Your task to perform on an android device: create a new album in the google photos Image 0: 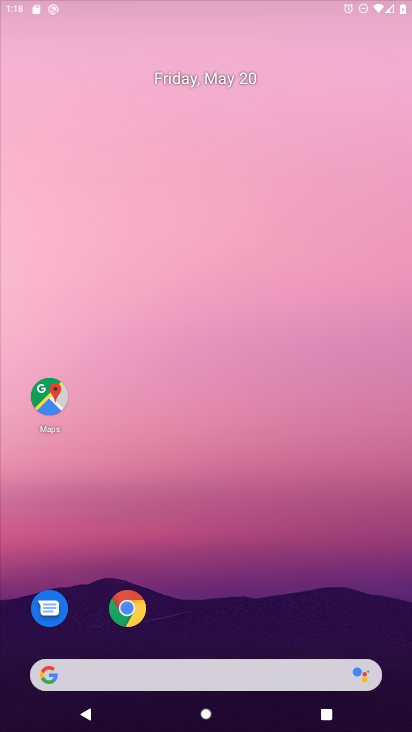
Step 0: press home button
Your task to perform on an android device: create a new album in the google photos Image 1: 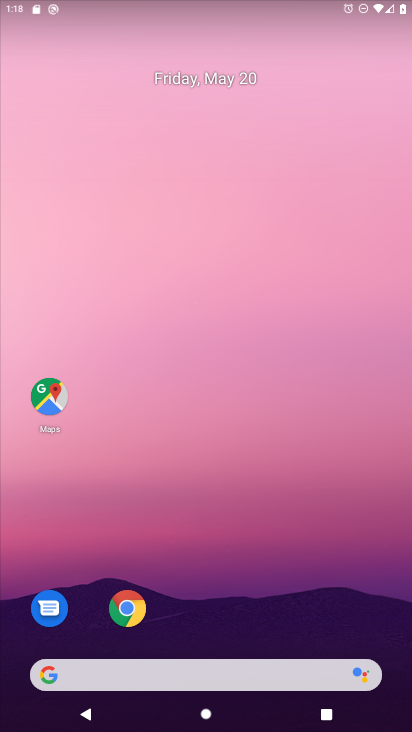
Step 1: drag from (284, 614) to (300, 86)
Your task to perform on an android device: create a new album in the google photos Image 2: 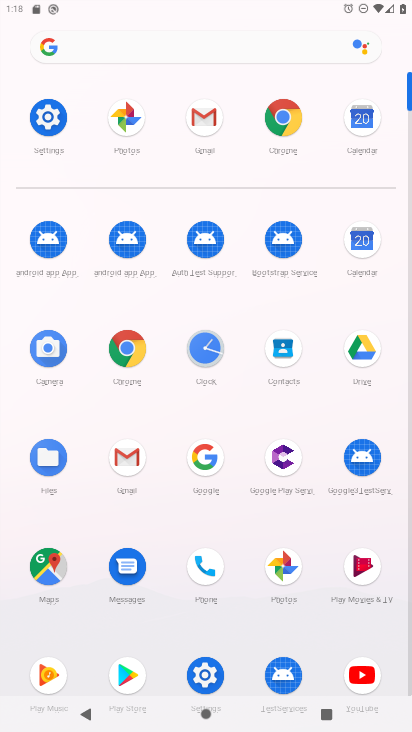
Step 2: click (128, 96)
Your task to perform on an android device: create a new album in the google photos Image 3: 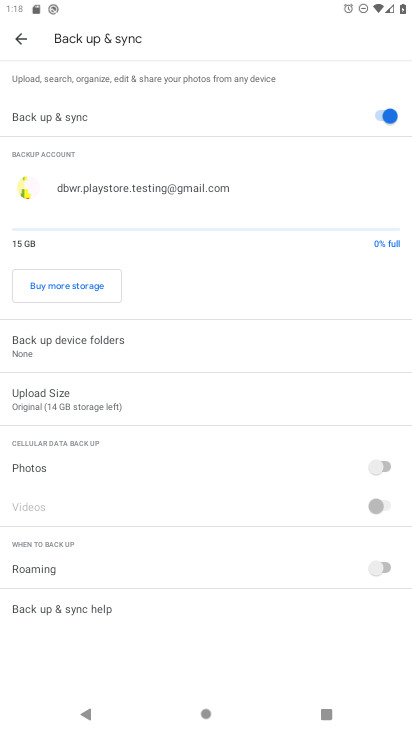
Step 3: click (23, 43)
Your task to perform on an android device: create a new album in the google photos Image 4: 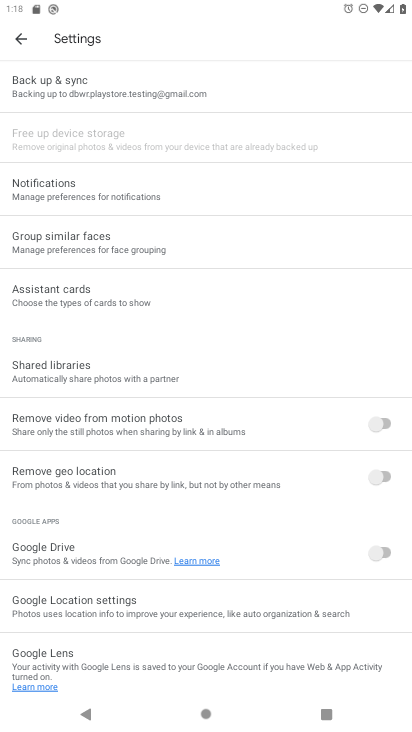
Step 4: click (21, 38)
Your task to perform on an android device: create a new album in the google photos Image 5: 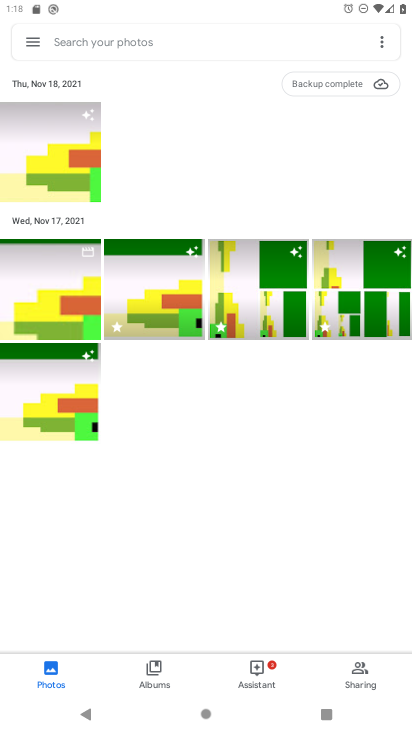
Step 5: click (52, 119)
Your task to perform on an android device: create a new album in the google photos Image 6: 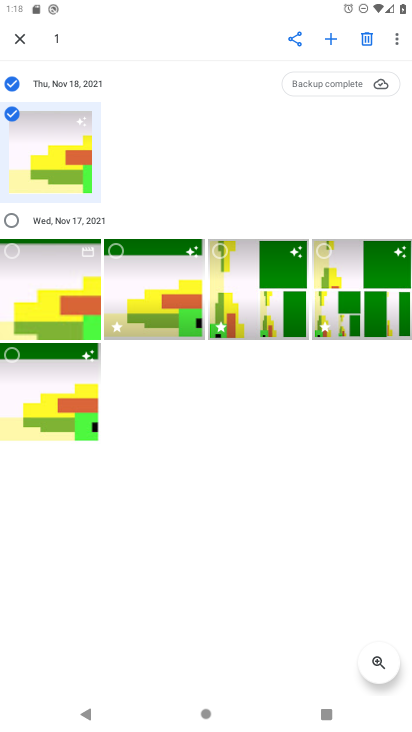
Step 6: click (334, 40)
Your task to perform on an android device: create a new album in the google photos Image 7: 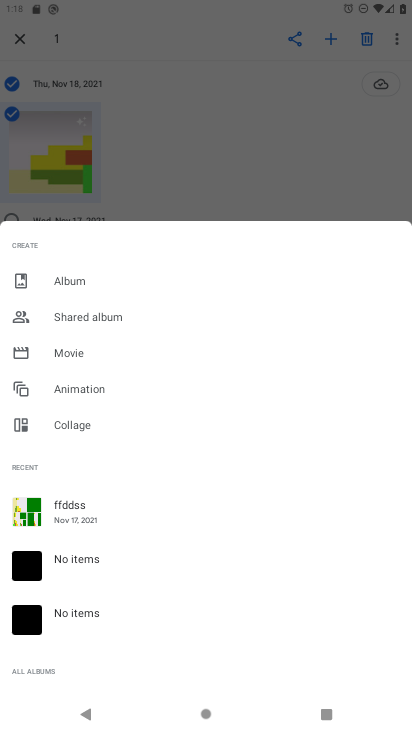
Step 7: click (78, 273)
Your task to perform on an android device: create a new album in the google photos Image 8: 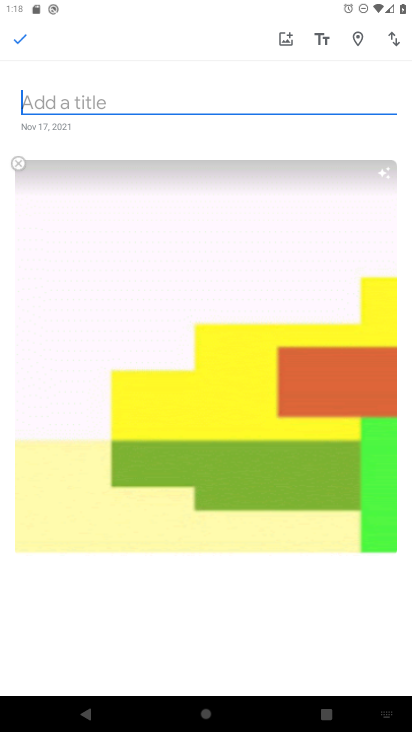
Step 8: type "EE"
Your task to perform on an android device: create a new album in the google photos Image 9: 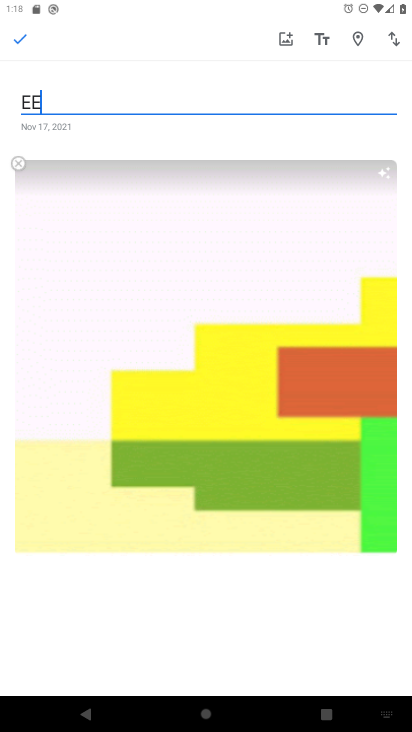
Step 9: click (14, 31)
Your task to perform on an android device: create a new album in the google photos Image 10: 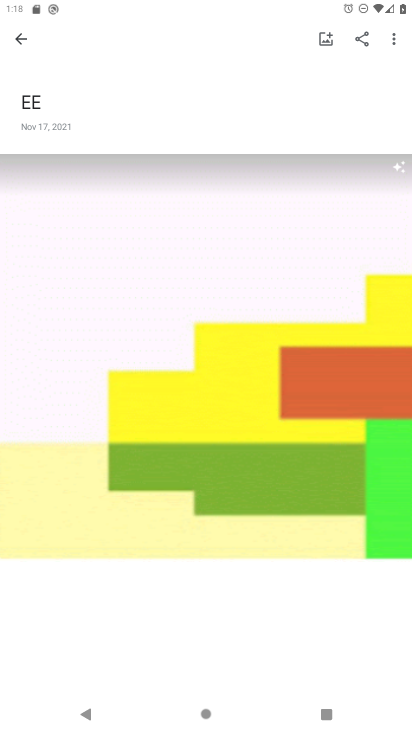
Step 10: task complete